Your task to perform on an android device: open app "LinkedIn" (install if not already installed) and enter user name: "dirt@inbox.com" and password: "receptionist" Image 0: 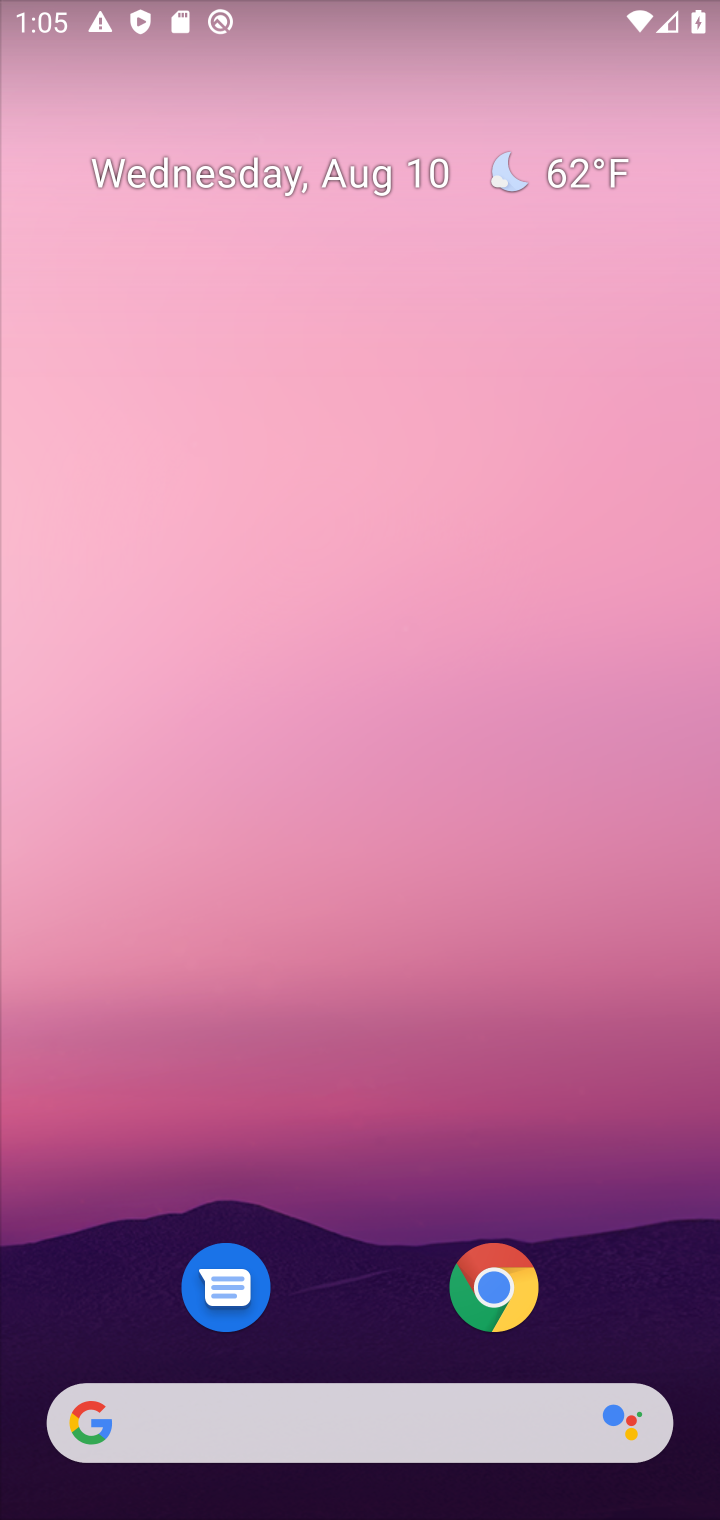
Step 0: drag from (354, 1136) to (590, 33)
Your task to perform on an android device: open app "LinkedIn" (install if not already installed) and enter user name: "dirt@inbox.com" and password: "receptionist" Image 1: 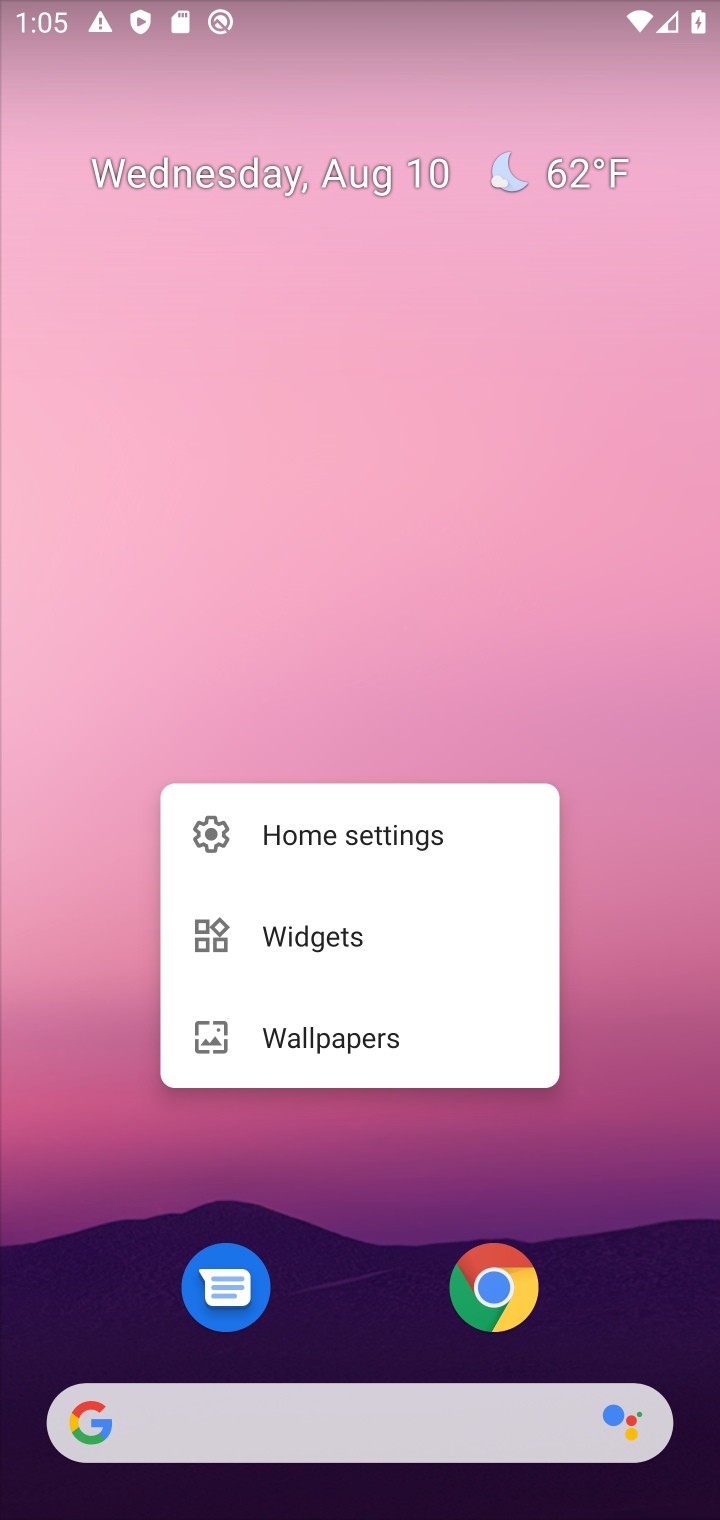
Step 1: click (371, 1231)
Your task to perform on an android device: open app "LinkedIn" (install if not already installed) and enter user name: "dirt@inbox.com" and password: "receptionist" Image 2: 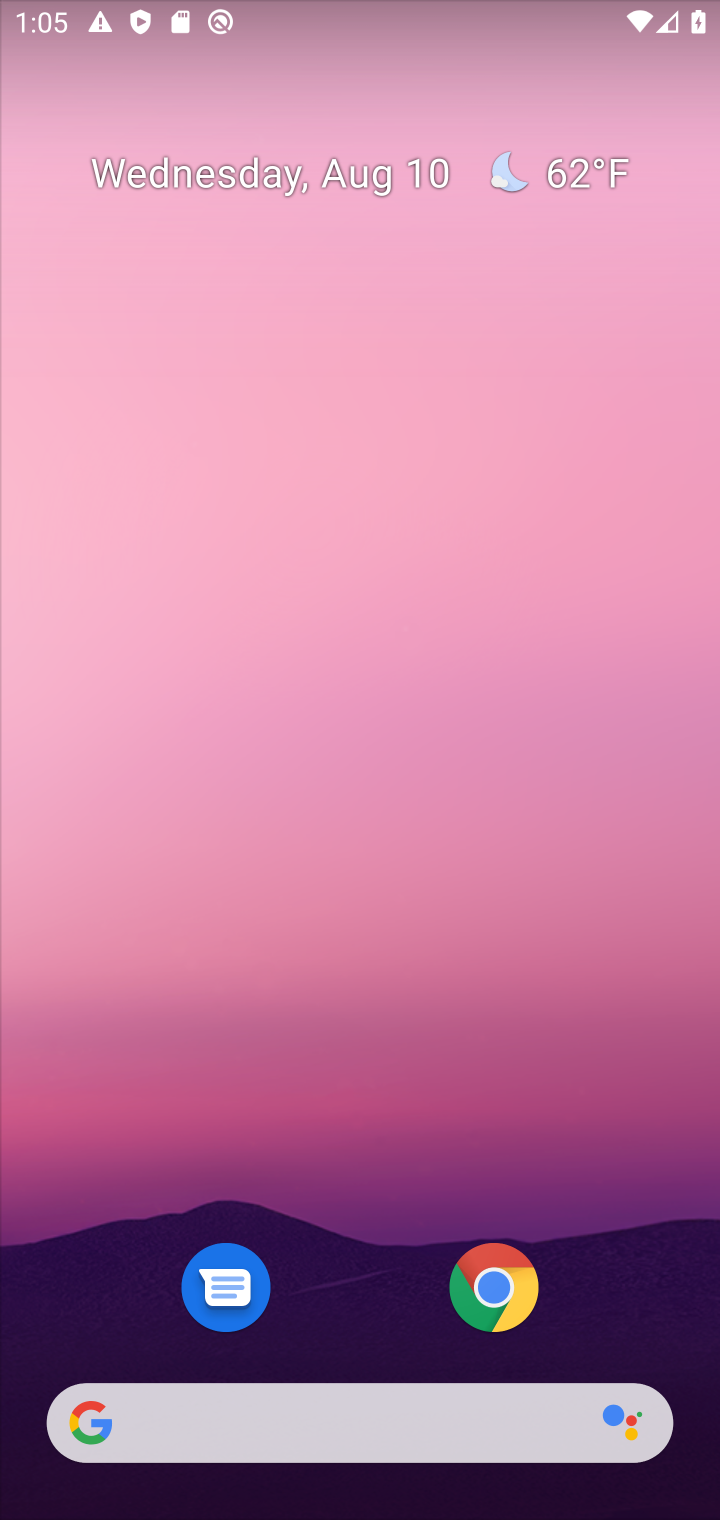
Step 2: drag from (375, 890) to (577, 26)
Your task to perform on an android device: open app "LinkedIn" (install if not already installed) and enter user name: "dirt@inbox.com" and password: "receptionist" Image 3: 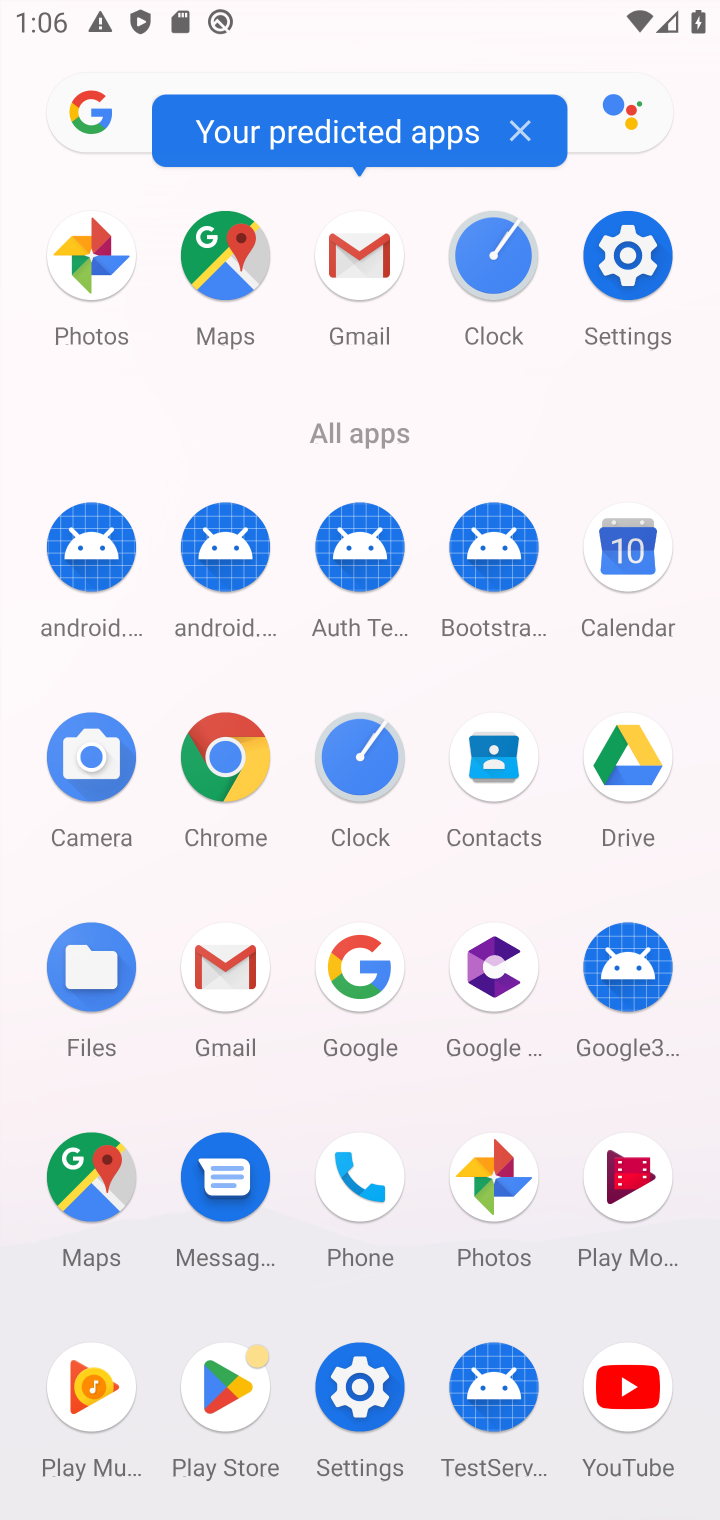
Step 3: click (216, 1367)
Your task to perform on an android device: open app "LinkedIn" (install if not already installed) and enter user name: "dirt@inbox.com" and password: "receptionist" Image 4: 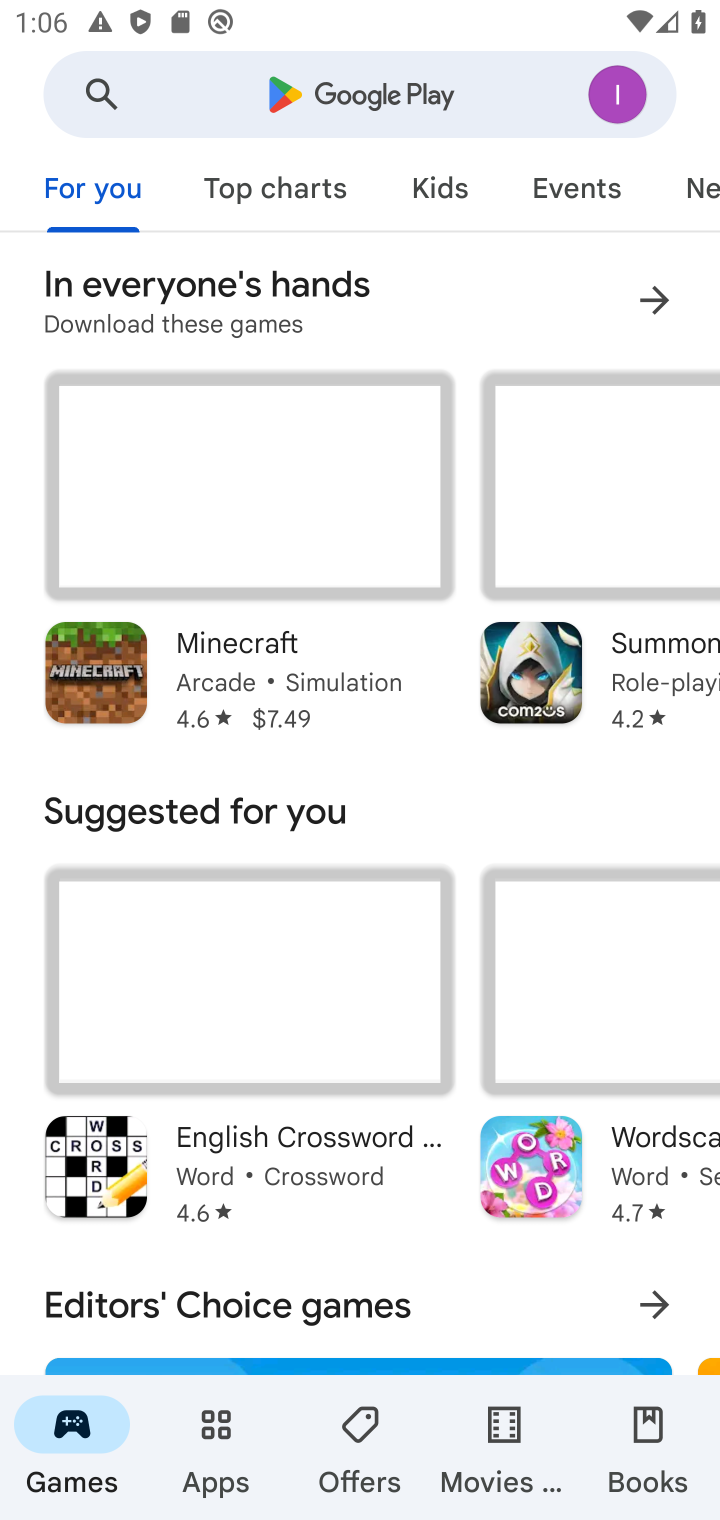
Step 4: click (350, 88)
Your task to perform on an android device: open app "LinkedIn" (install if not already installed) and enter user name: "dirt@inbox.com" and password: "receptionist" Image 5: 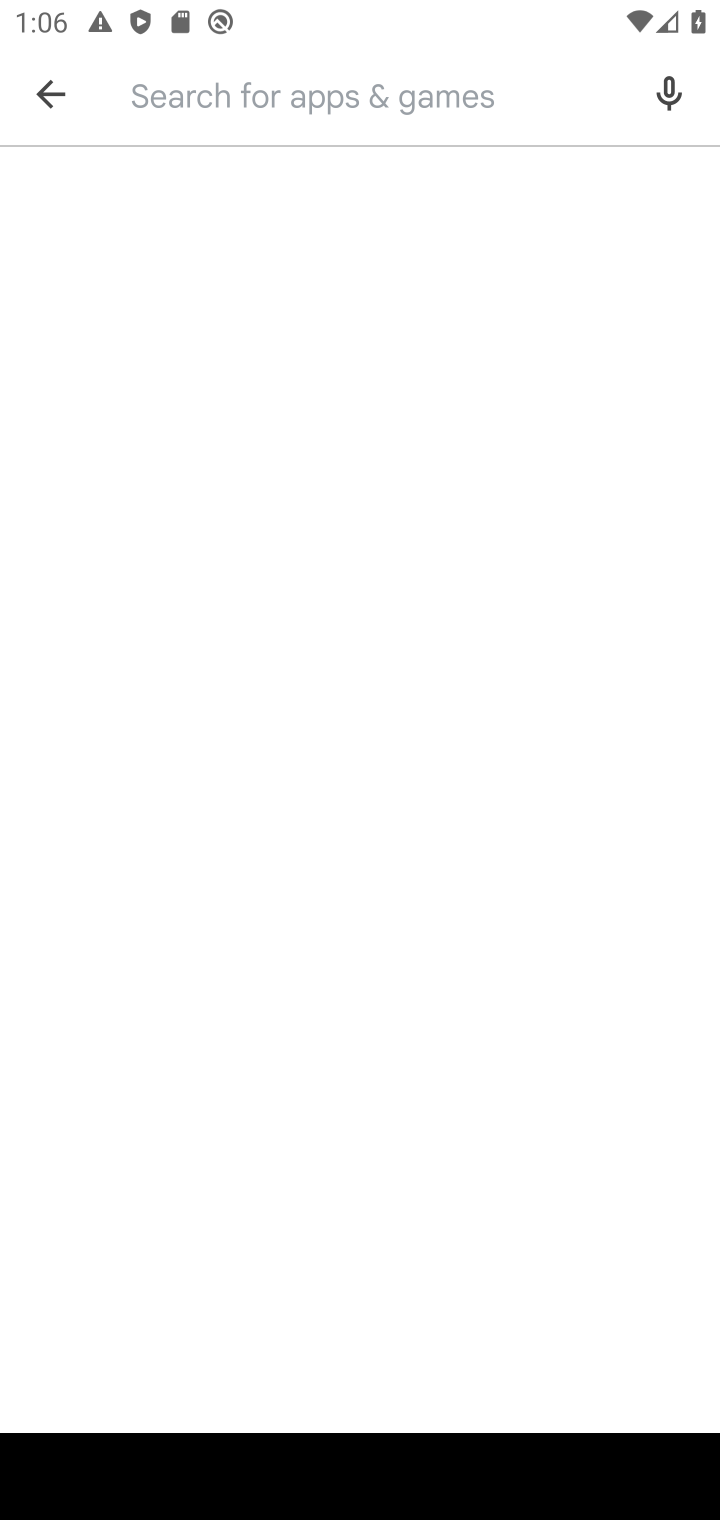
Step 5: type "linkedin"
Your task to perform on an android device: open app "LinkedIn" (install if not already installed) and enter user name: "dirt@inbox.com" and password: "receptionist" Image 6: 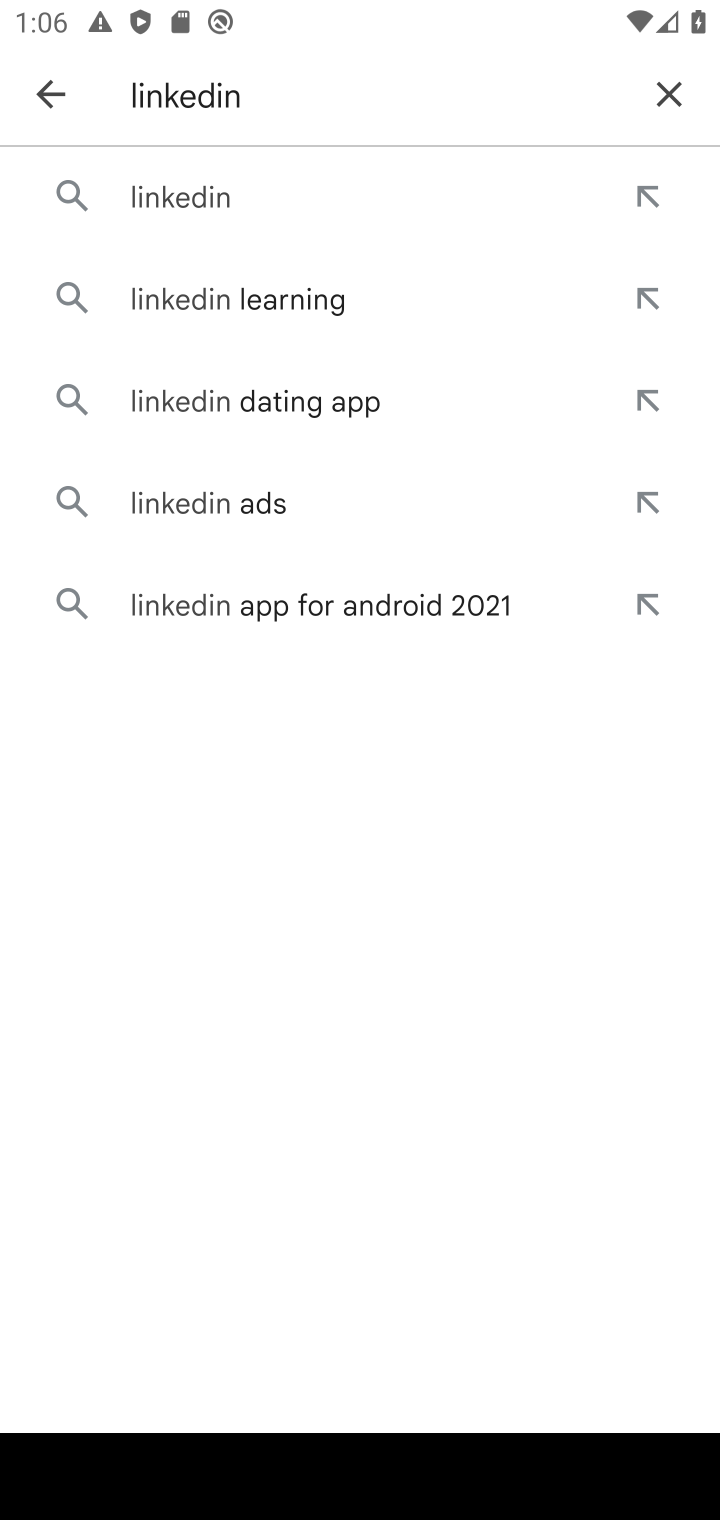
Step 6: click (228, 187)
Your task to perform on an android device: open app "LinkedIn" (install if not already installed) and enter user name: "dirt@inbox.com" and password: "receptionist" Image 7: 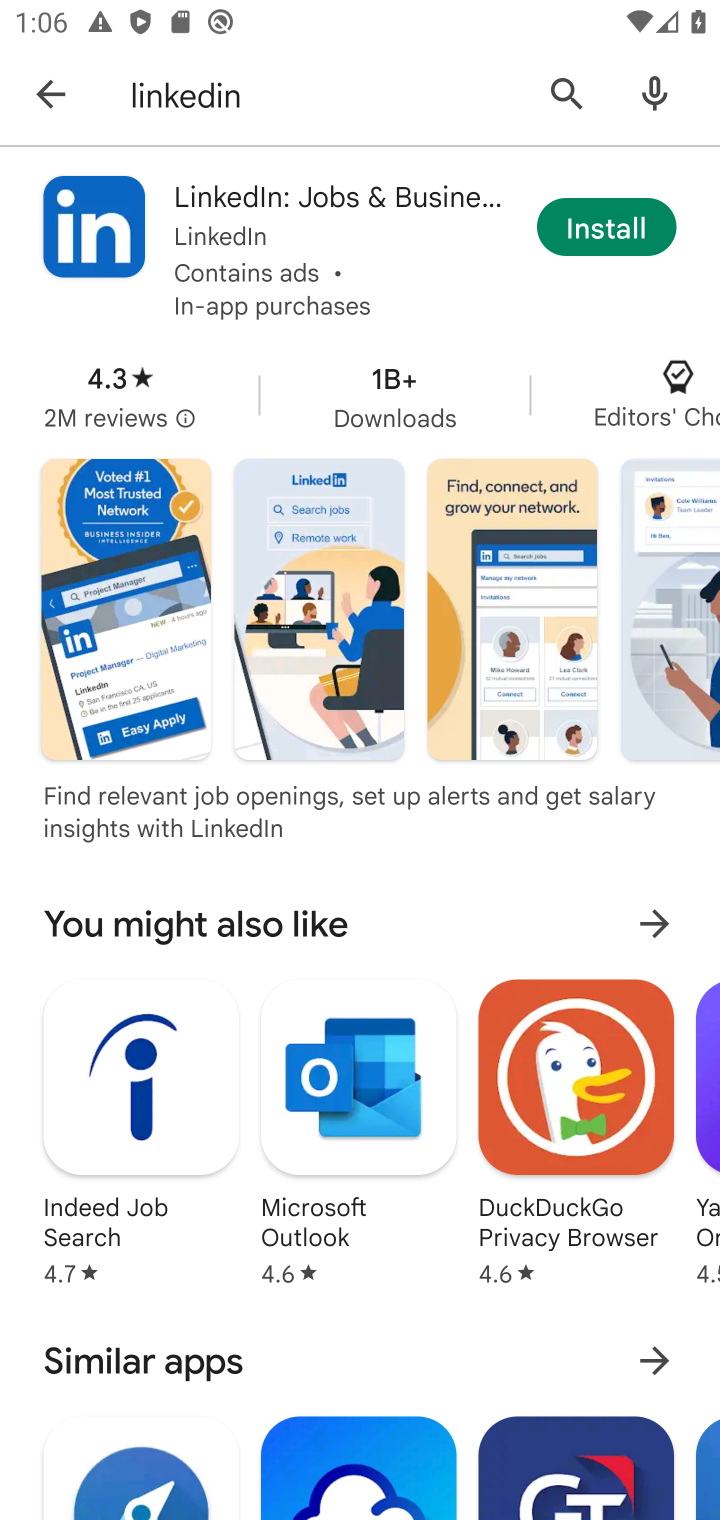
Step 7: click (615, 224)
Your task to perform on an android device: open app "LinkedIn" (install if not already installed) and enter user name: "dirt@inbox.com" and password: "receptionist" Image 8: 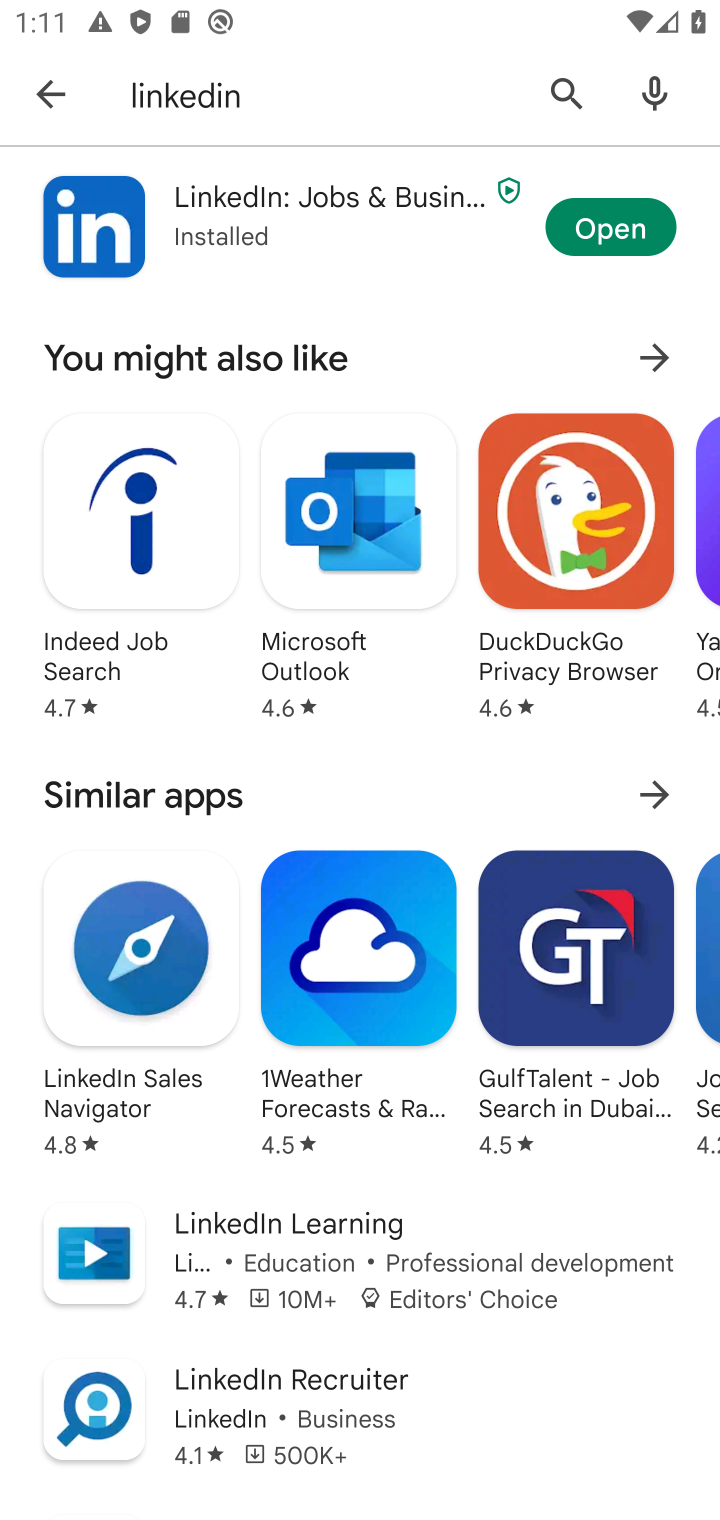
Step 8: click (534, 230)
Your task to perform on an android device: open app "LinkedIn" (install if not already installed) and enter user name: "dirt@inbox.com" and password: "receptionist" Image 9: 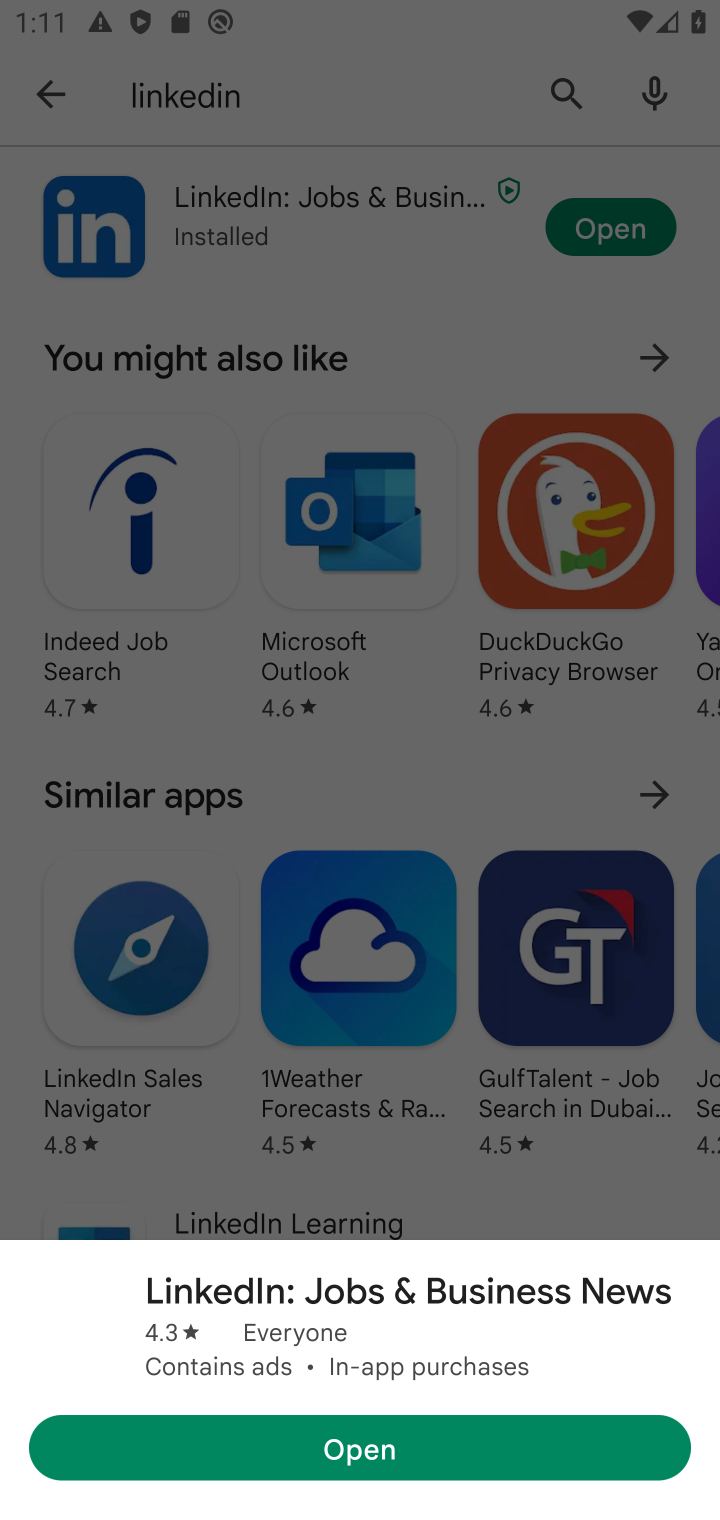
Step 9: click (585, 227)
Your task to perform on an android device: open app "LinkedIn" (install if not already installed) and enter user name: "dirt@inbox.com" and password: "receptionist" Image 10: 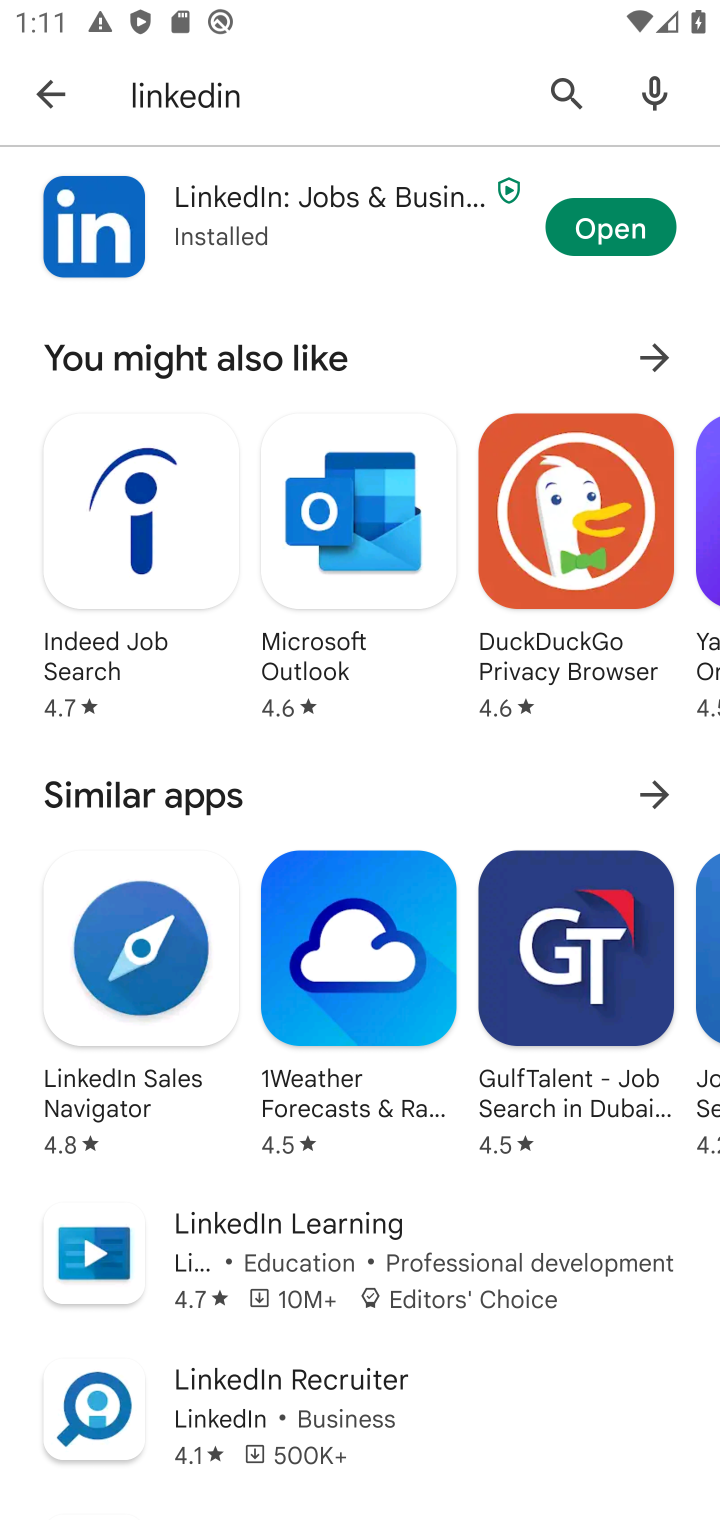
Step 10: click (585, 227)
Your task to perform on an android device: open app "LinkedIn" (install if not already installed) and enter user name: "dirt@inbox.com" and password: "receptionist" Image 11: 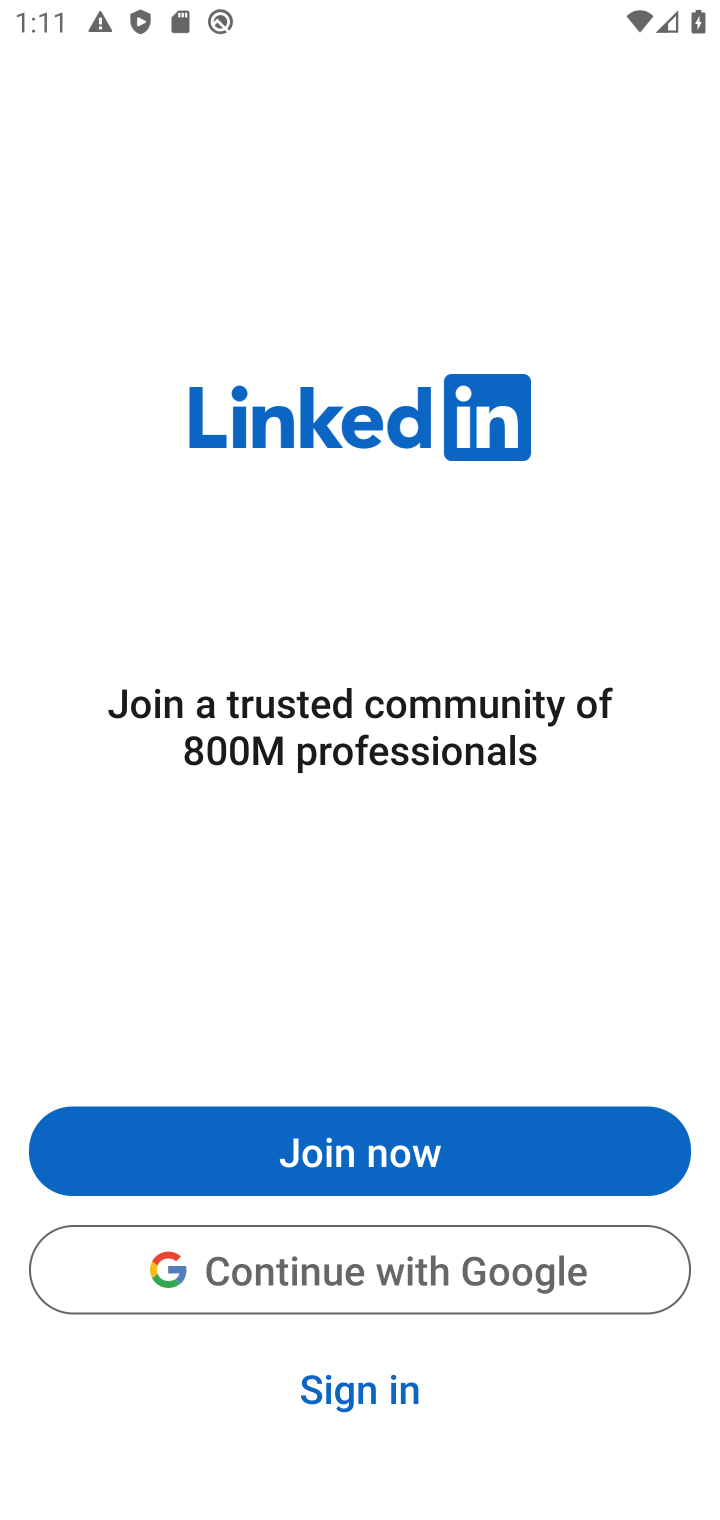
Step 11: click (374, 1389)
Your task to perform on an android device: open app "LinkedIn" (install if not already installed) and enter user name: "dirt@inbox.com" and password: "receptionist" Image 12: 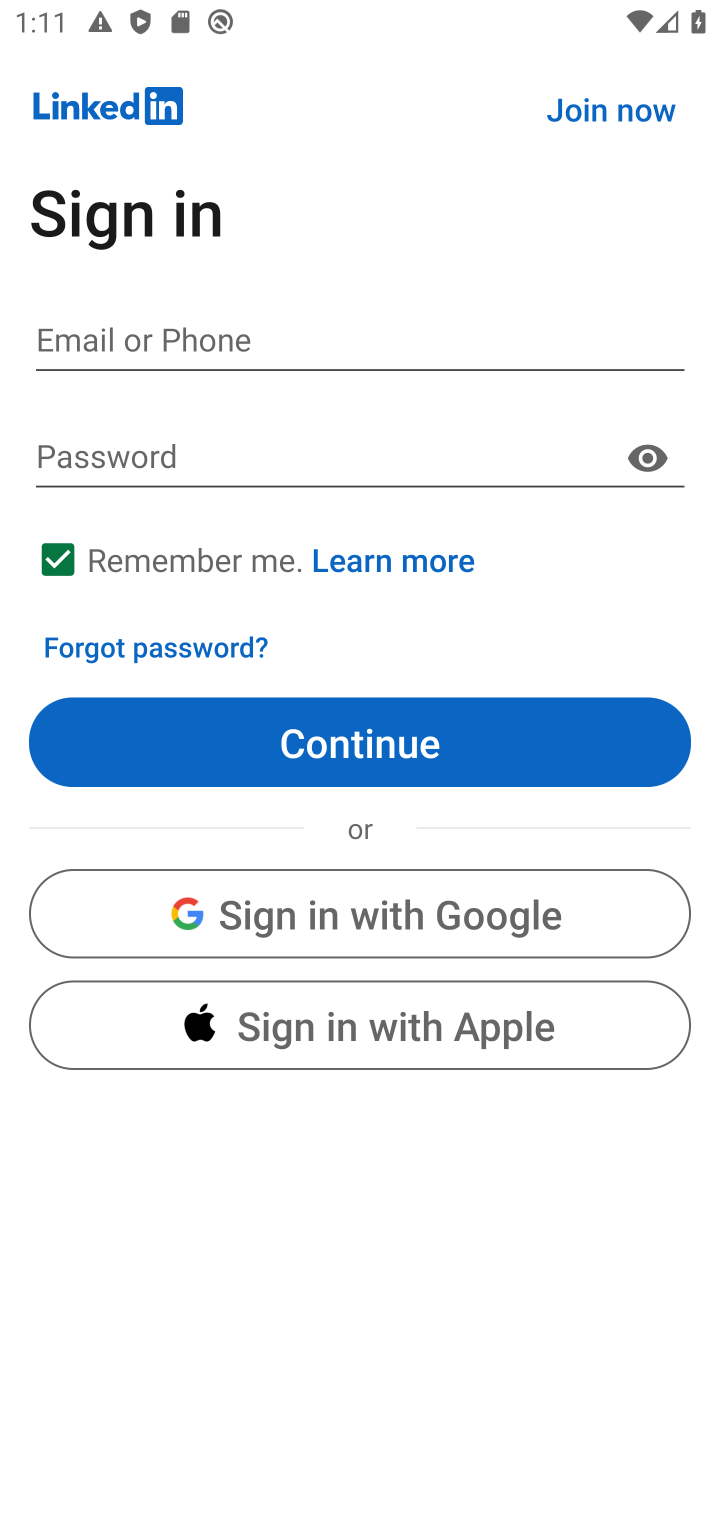
Step 12: click (197, 306)
Your task to perform on an android device: open app "LinkedIn" (install if not already installed) and enter user name: "dirt@inbox.com" and password: "receptionist" Image 13: 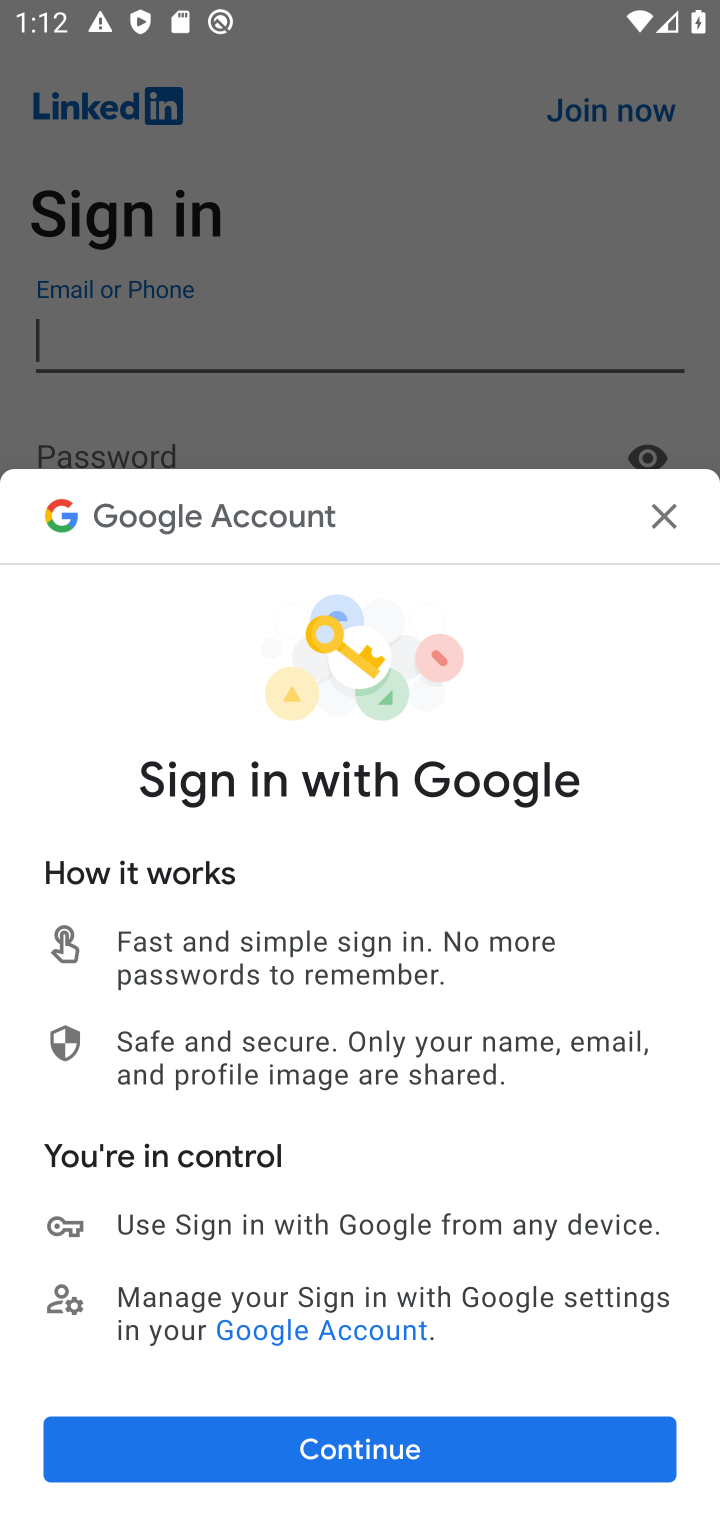
Step 13: click (650, 496)
Your task to perform on an android device: open app "LinkedIn" (install if not already installed) and enter user name: "dirt@inbox.com" and password: "receptionist" Image 14: 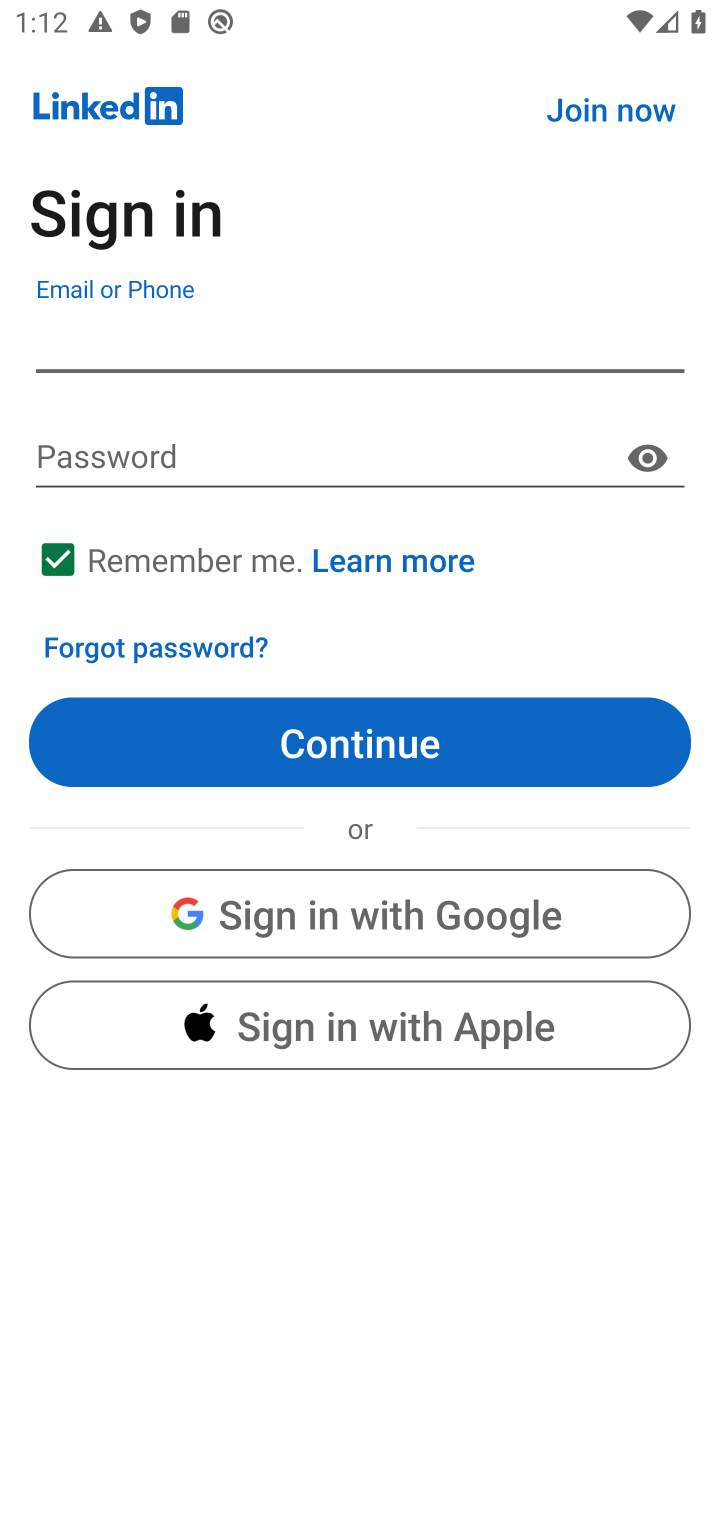
Step 14: type "dirt@inbox.com"
Your task to perform on an android device: open app "LinkedIn" (install if not already installed) and enter user name: "dirt@inbox.com" and password: "receptionist" Image 15: 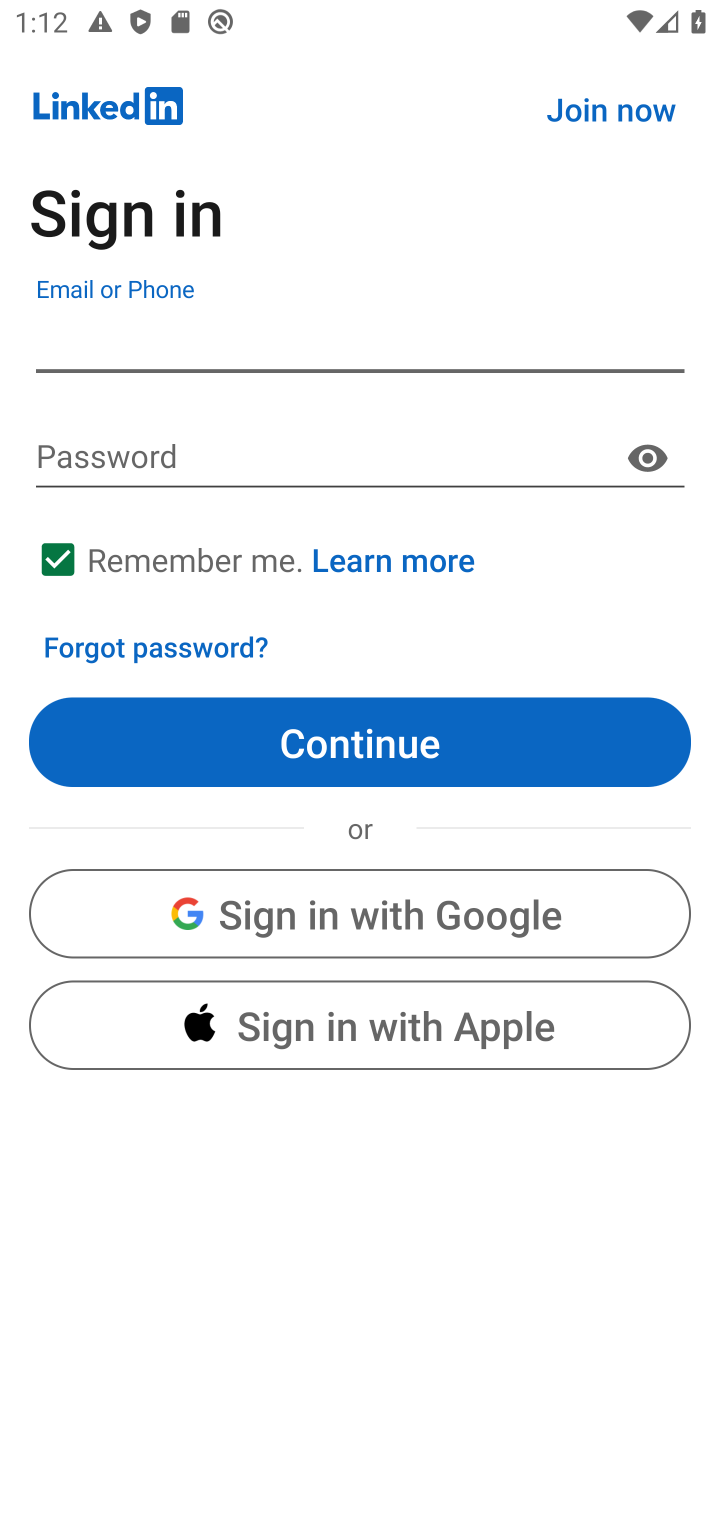
Step 15: click (137, 456)
Your task to perform on an android device: open app "LinkedIn" (install if not already installed) and enter user name: "dirt@inbox.com" and password: "receptionist" Image 16: 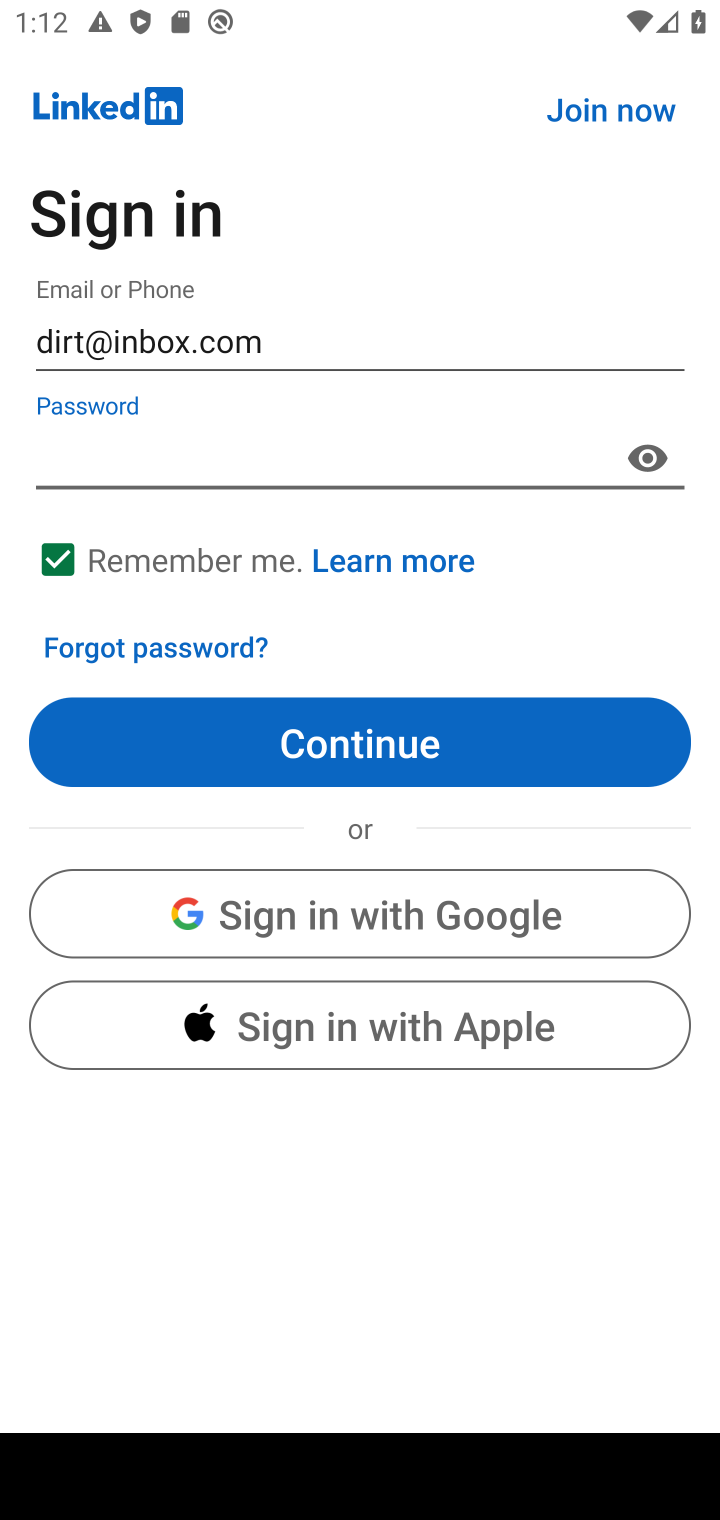
Step 16: type "receptionist"
Your task to perform on an android device: open app "LinkedIn" (install if not already installed) and enter user name: "dirt@inbox.com" and password: "receptionist" Image 17: 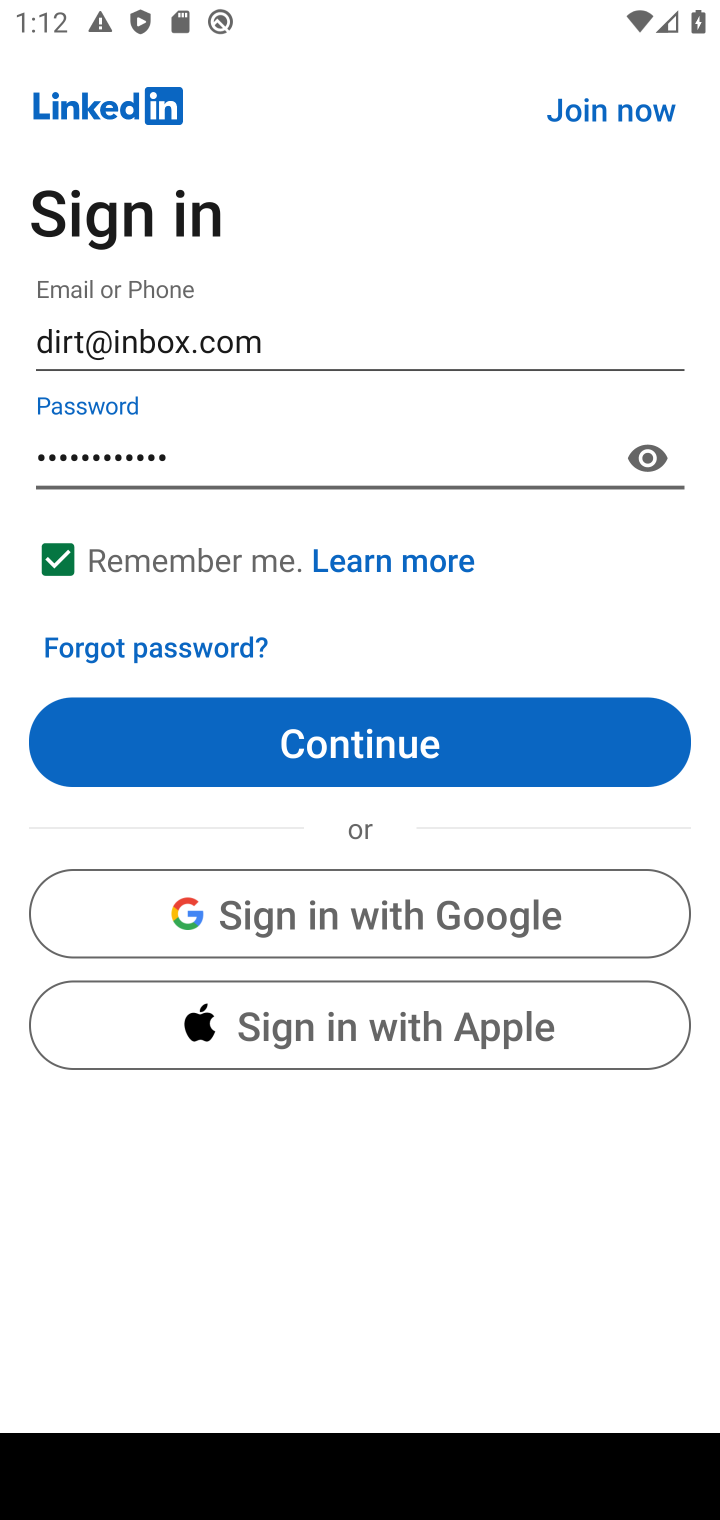
Step 17: click (400, 747)
Your task to perform on an android device: open app "LinkedIn" (install if not already installed) and enter user name: "dirt@inbox.com" and password: "receptionist" Image 18: 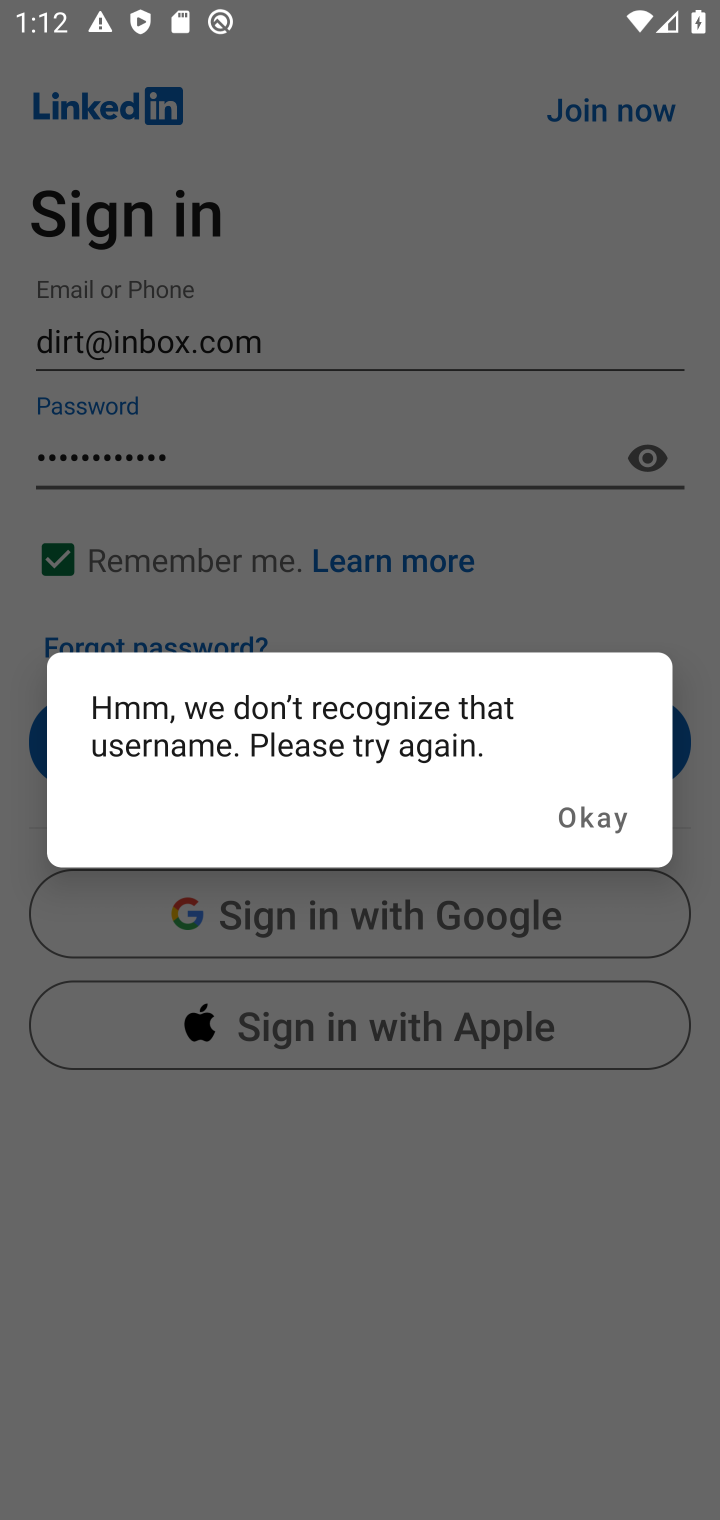
Step 18: click (608, 819)
Your task to perform on an android device: open app "LinkedIn" (install if not already installed) and enter user name: "dirt@inbox.com" and password: "receptionist" Image 19: 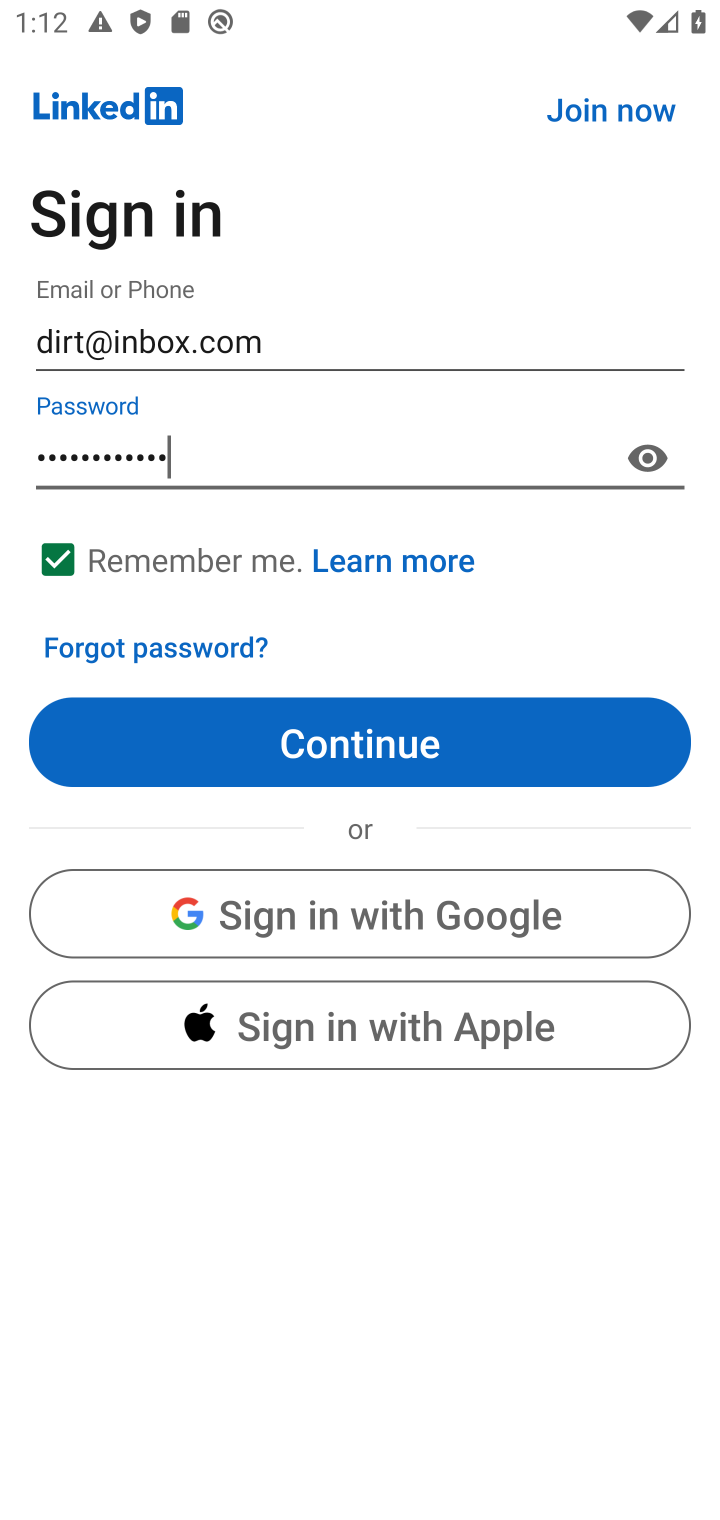
Step 19: task complete